Your task to perform on an android device: Open calendar and show me the third week of next month Image 0: 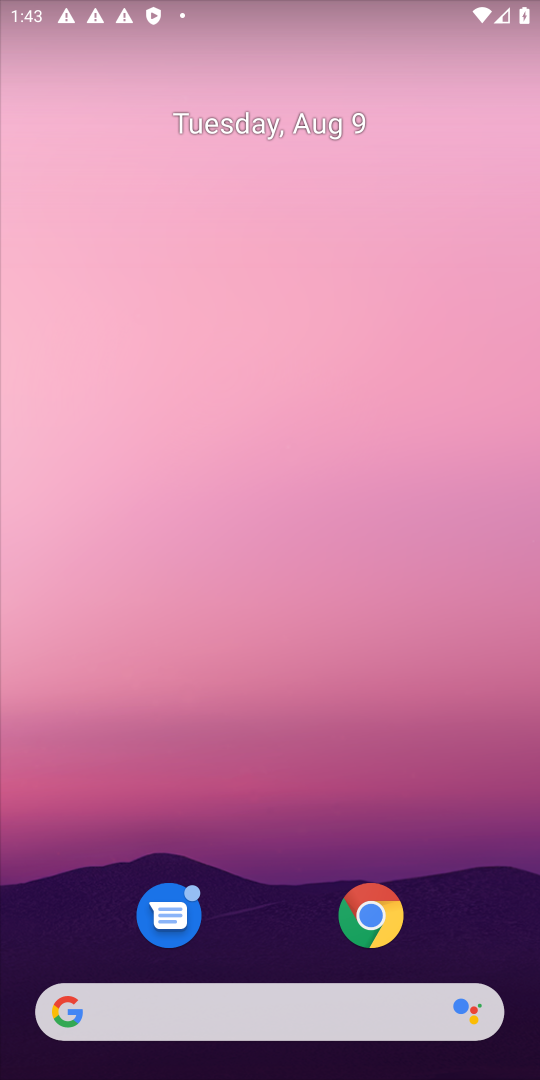
Step 0: click (296, 159)
Your task to perform on an android device: Open calendar and show me the third week of next month Image 1: 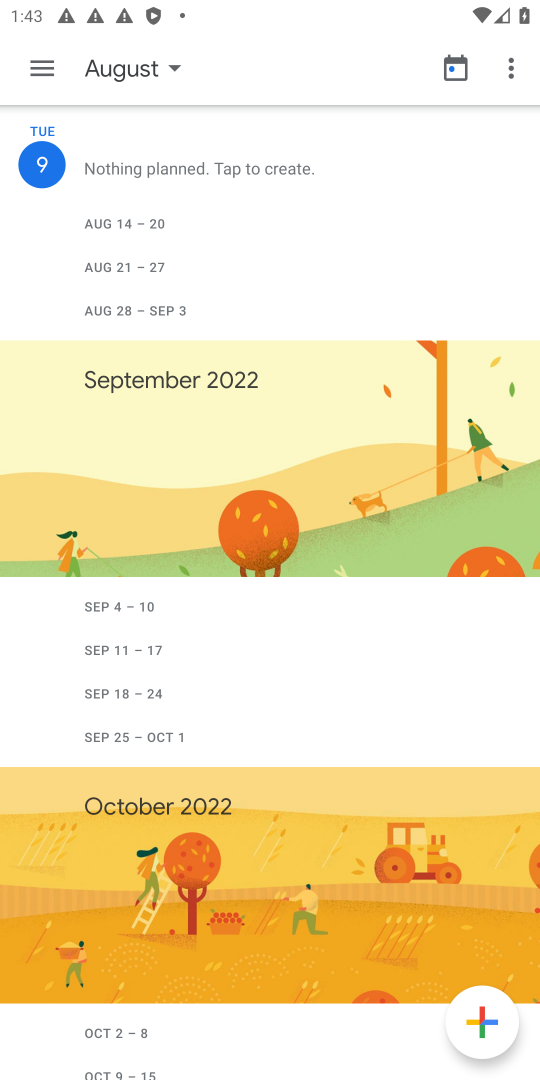
Step 1: drag from (309, 853) to (262, 313)
Your task to perform on an android device: Open calendar and show me the third week of next month Image 2: 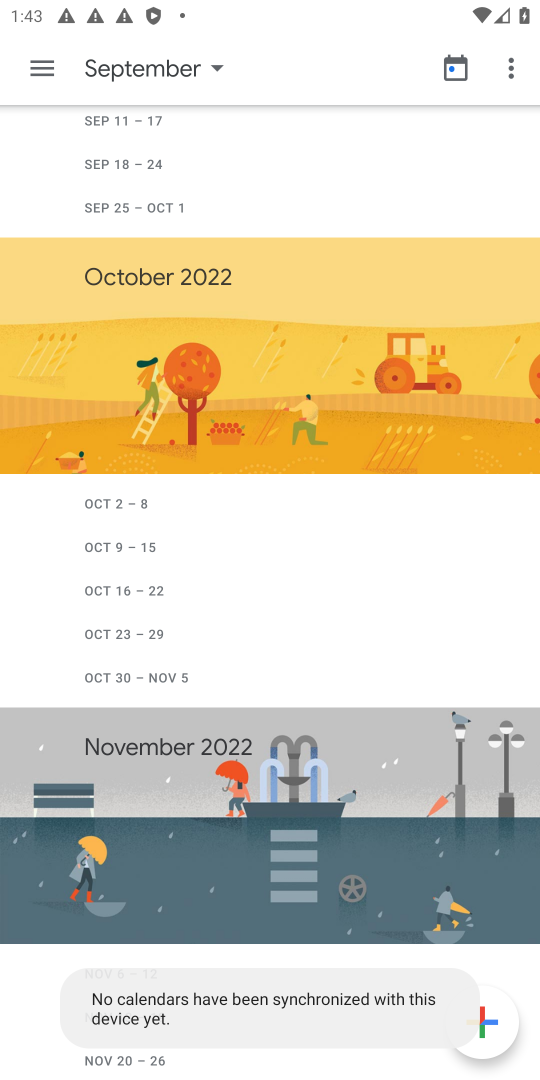
Step 2: click (212, 64)
Your task to perform on an android device: Open calendar and show me the third week of next month Image 3: 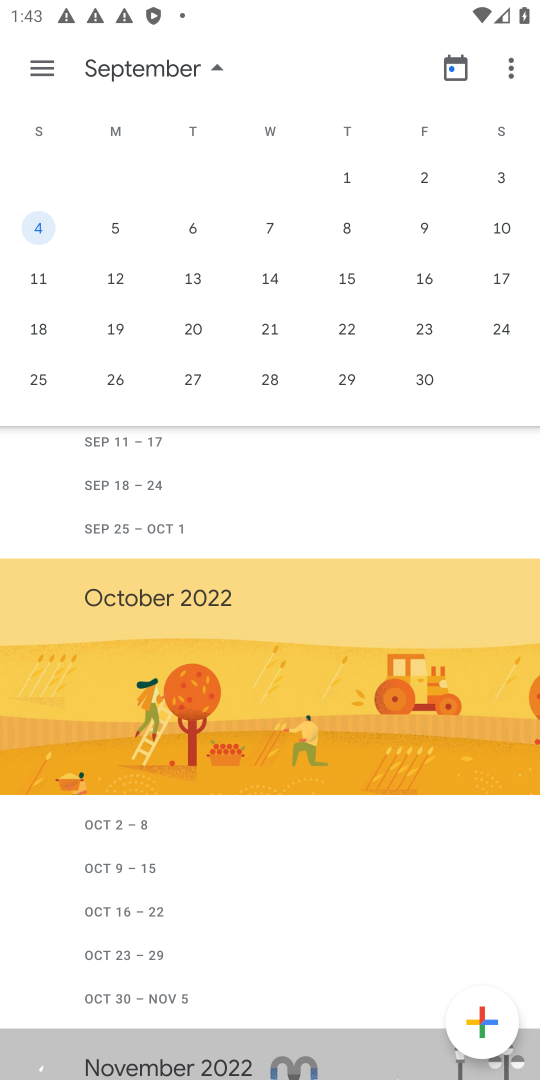
Step 3: click (347, 279)
Your task to perform on an android device: Open calendar and show me the third week of next month Image 4: 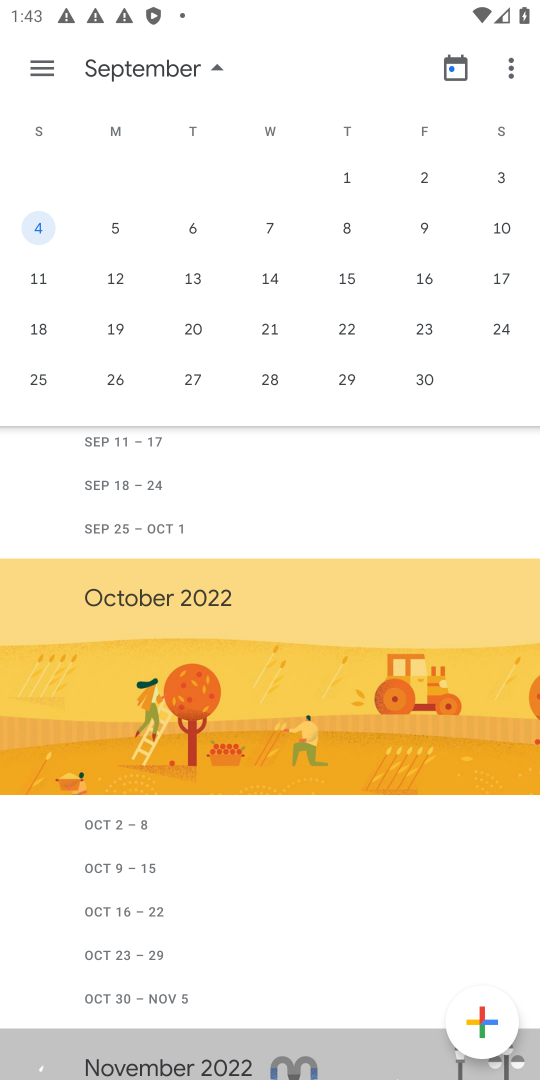
Step 4: click (346, 280)
Your task to perform on an android device: Open calendar and show me the third week of next month Image 5: 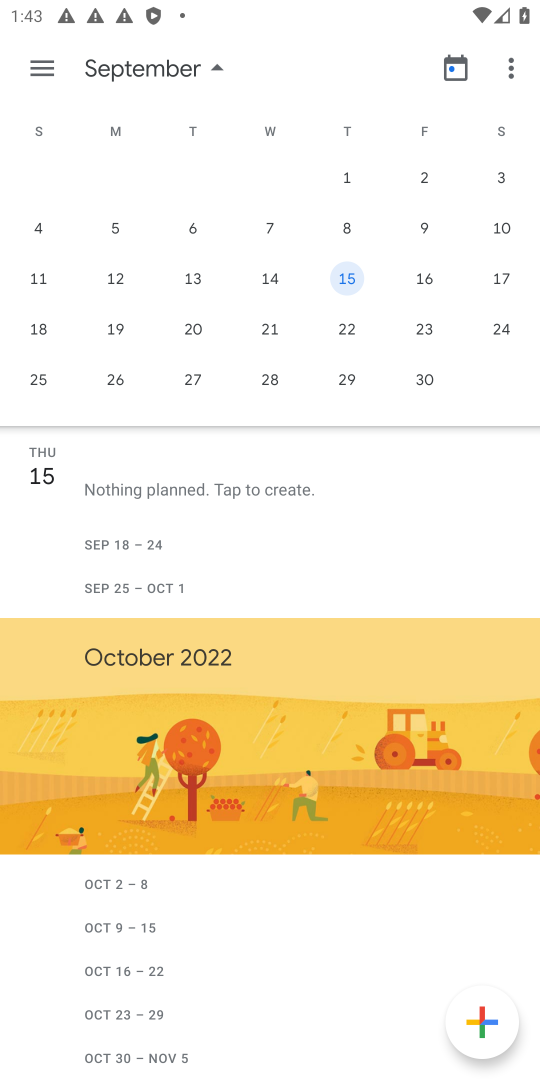
Step 5: task complete